Your task to perform on an android device: Go to Google Image 0: 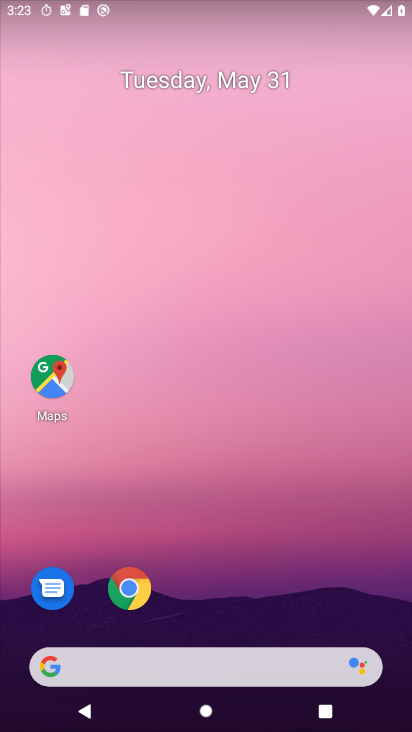
Step 0: drag from (229, 691) to (268, 147)
Your task to perform on an android device: Go to Google Image 1: 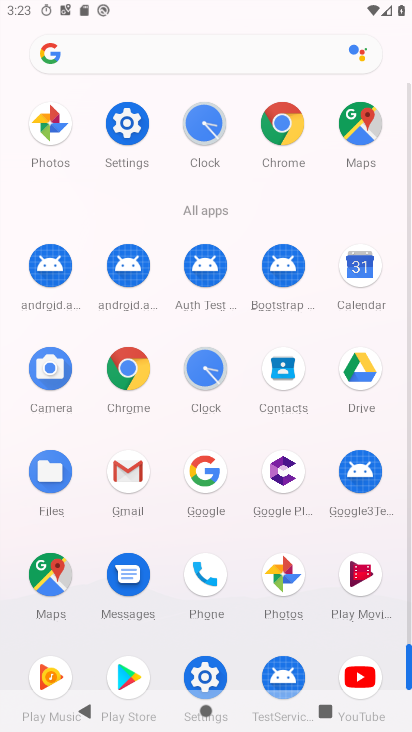
Step 1: click (210, 472)
Your task to perform on an android device: Go to Google Image 2: 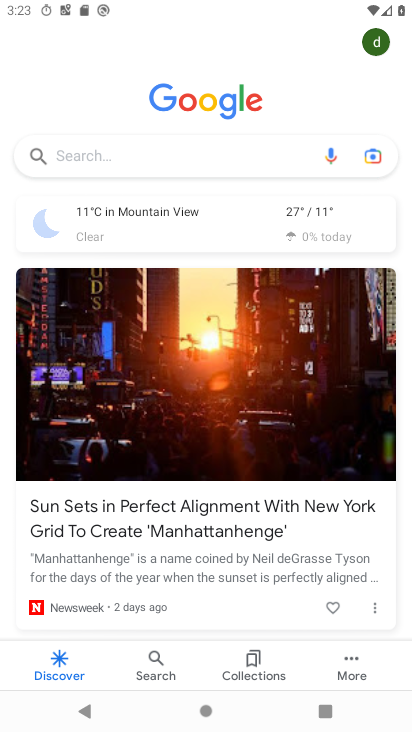
Step 2: task complete